Your task to perform on an android device: turn off improve location accuracy Image 0: 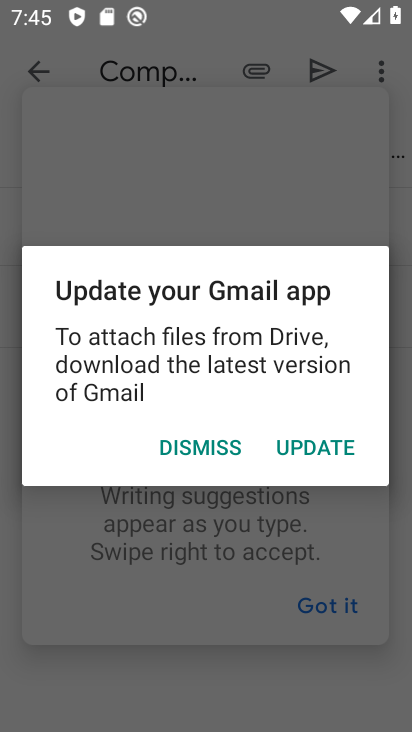
Step 0: press home button
Your task to perform on an android device: turn off improve location accuracy Image 1: 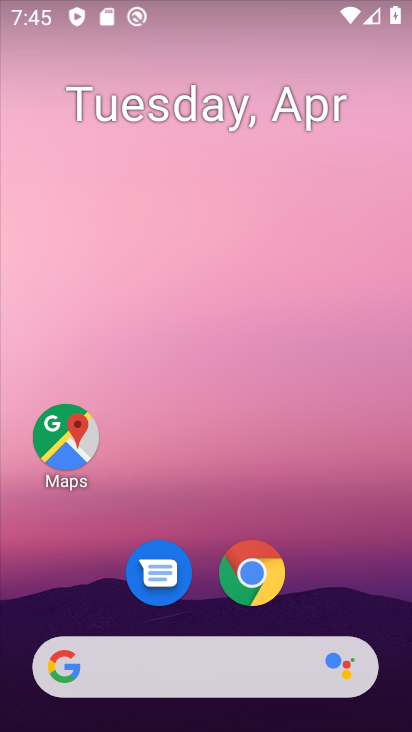
Step 1: drag from (283, 10) to (304, 673)
Your task to perform on an android device: turn off improve location accuracy Image 2: 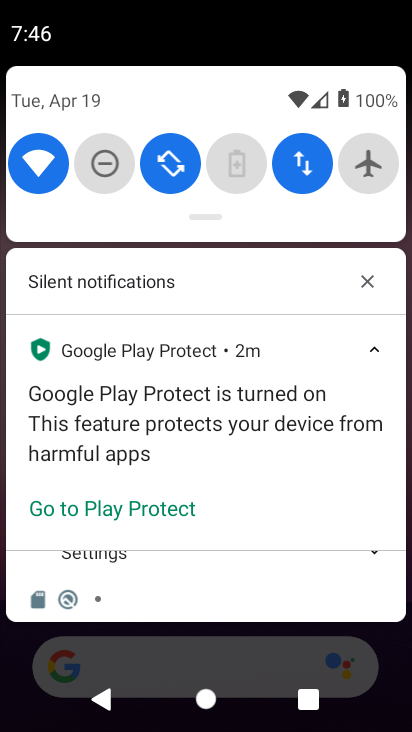
Step 2: drag from (207, 105) to (218, 640)
Your task to perform on an android device: turn off improve location accuracy Image 3: 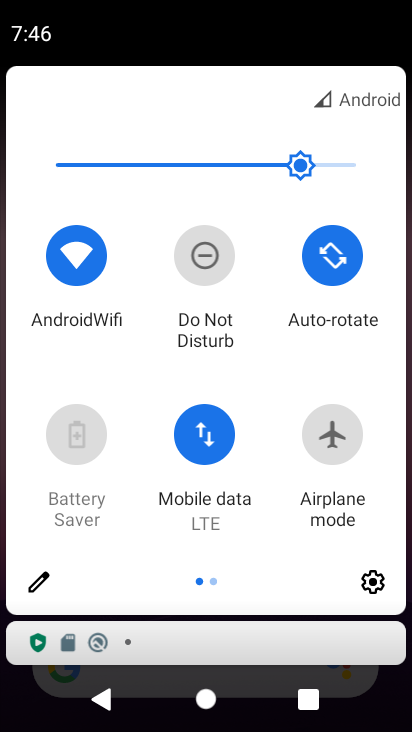
Step 3: click (376, 582)
Your task to perform on an android device: turn off improve location accuracy Image 4: 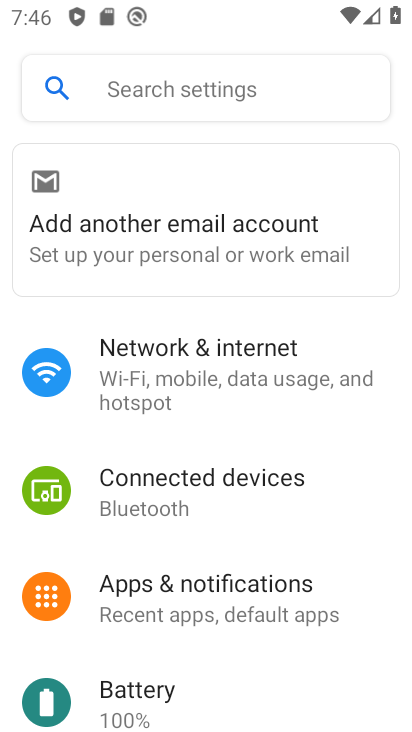
Step 4: drag from (208, 668) to (205, 173)
Your task to perform on an android device: turn off improve location accuracy Image 5: 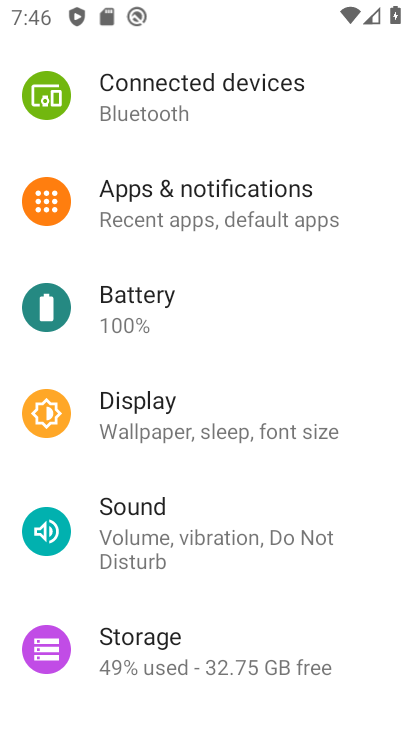
Step 5: drag from (208, 661) to (217, 141)
Your task to perform on an android device: turn off improve location accuracy Image 6: 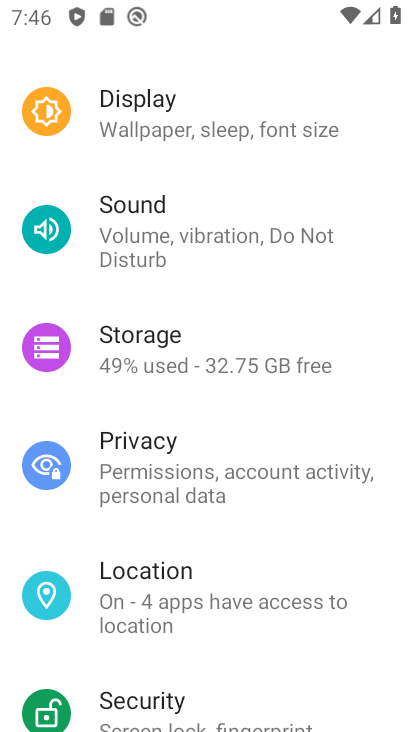
Step 6: click (197, 594)
Your task to perform on an android device: turn off improve location accuracy Image 7: 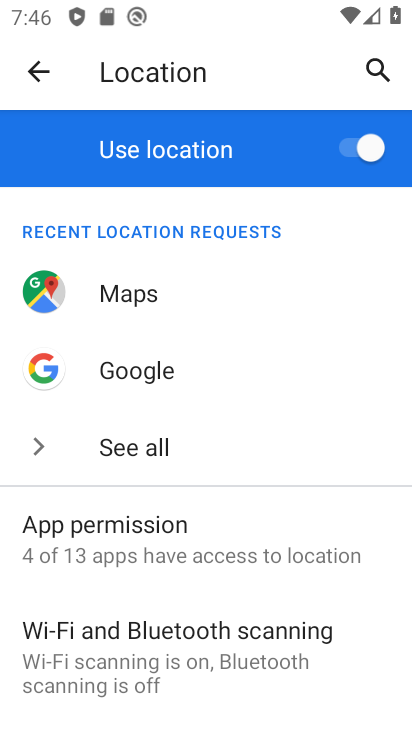
Step 7: drag from (198, 616) to (208, 68)
Your task to perform on an android device: turn off improve location accuracy Image 8: 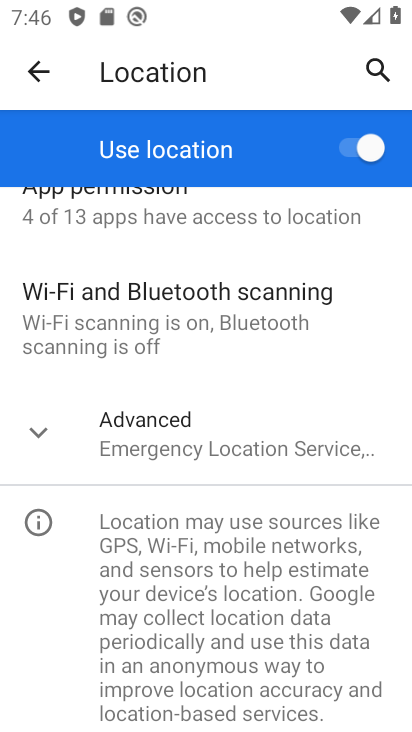
Step 8: click (284, 434)
Your task to perform on an android device: turn off improve location accuracy Image 9: 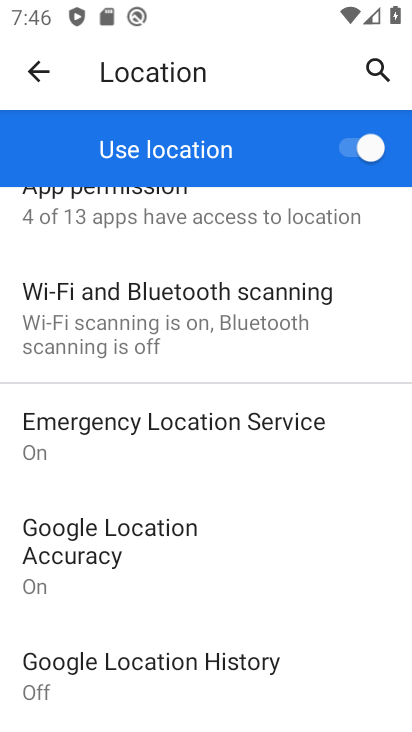
Step 9: click (140, 552)
Your task to perform on an android device: turn off improve location accuracy Image 10: 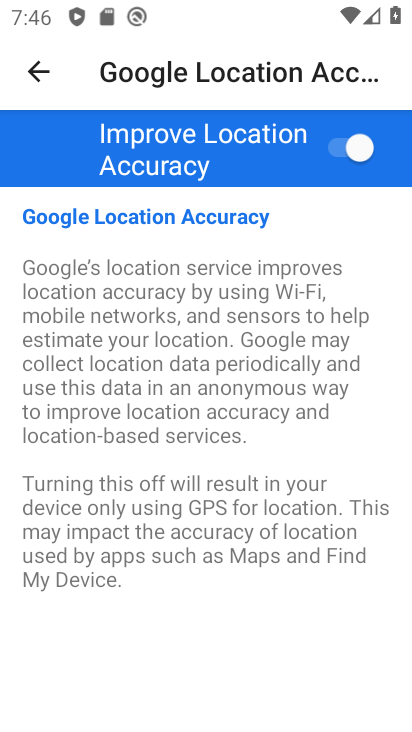
Step 10: click (340, 155)
Your task to perform on an android device: turn off improve location accuracy Image 11: 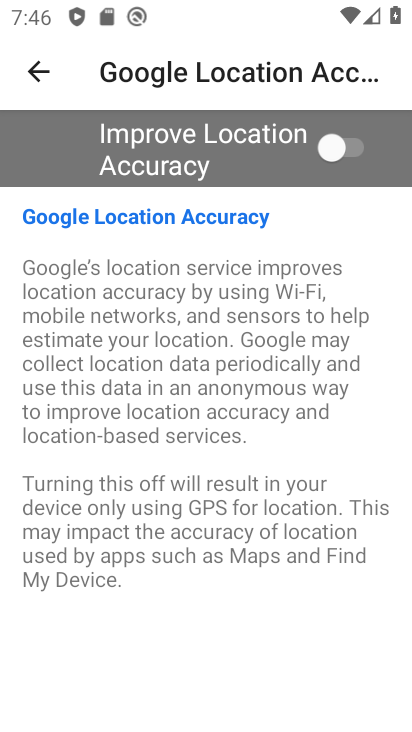
Step 11: task complete